Your task to perform on an android device: change keyboard looks Image 0: 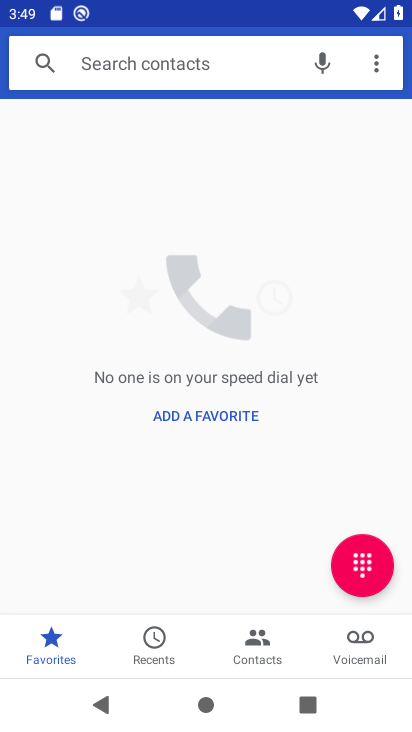
Step 0: press home button
Your task to perform on an android device: change keyboard looks Image 1: 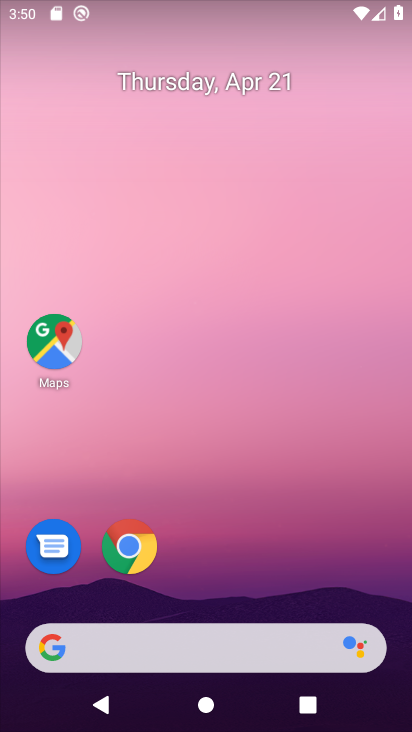
Step 1: drag from (315, 591) to (327, 82)
Your task to perform on an android device: change keyboard looks Image 2: 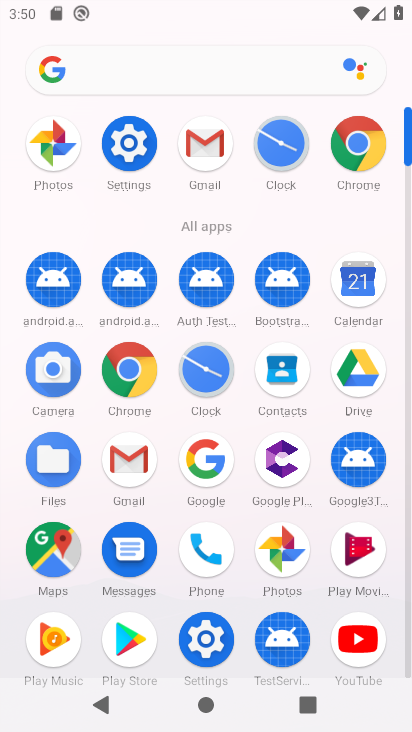
Step 2: click (204, 632)
Your task to perform on an android device: change keyboard looks Image 3: 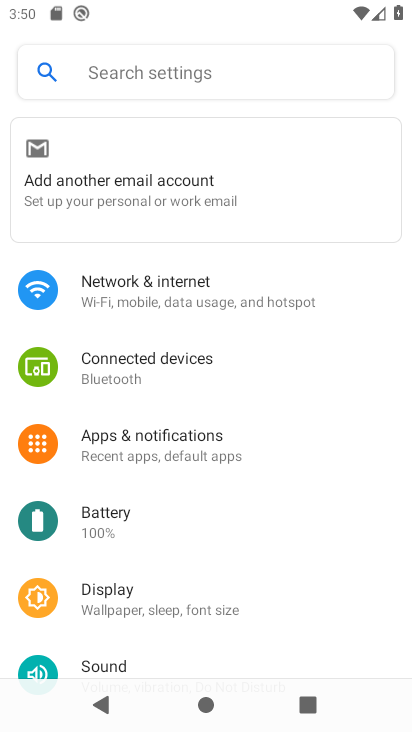
Step 3: click (117, 40)
Your task to perform on an android device: change keyboard looks Image 4: 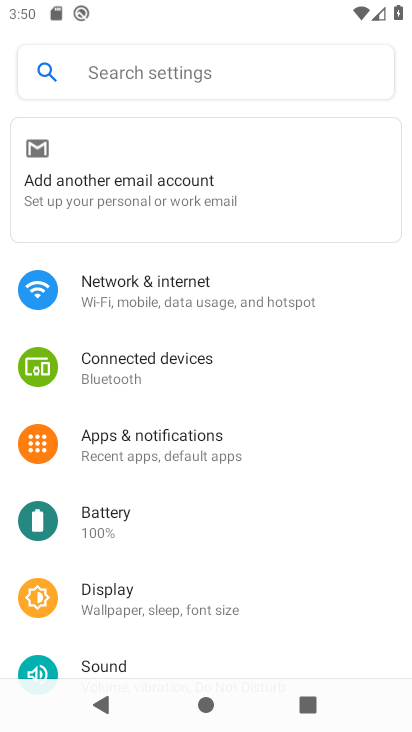
Step 4: click (133, 64)
Your task to perform on an android device: change keyboard looks Image 5: 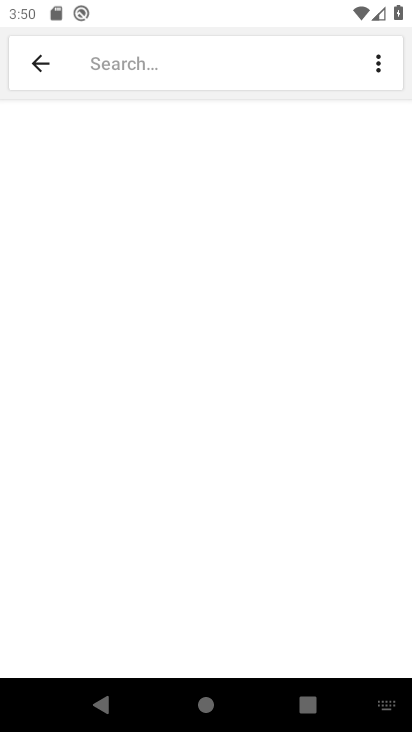
Step 5: type "keyboard"
Your task to perform on an android device: change keyboard looks Image 6: 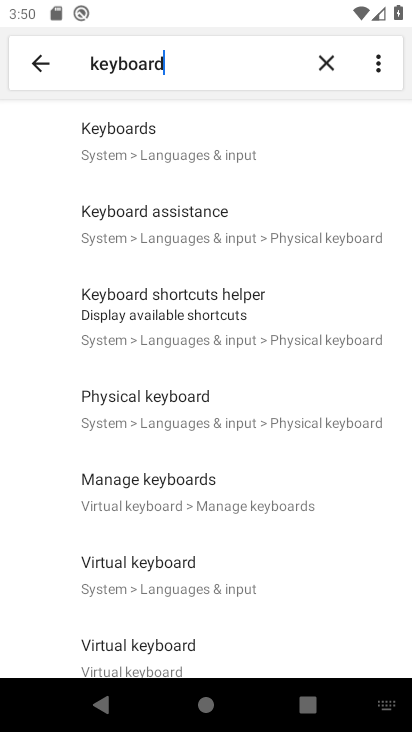
Step 6: click (222, 138)
Your task to perform on an android device: change keyboard looks Image 7: 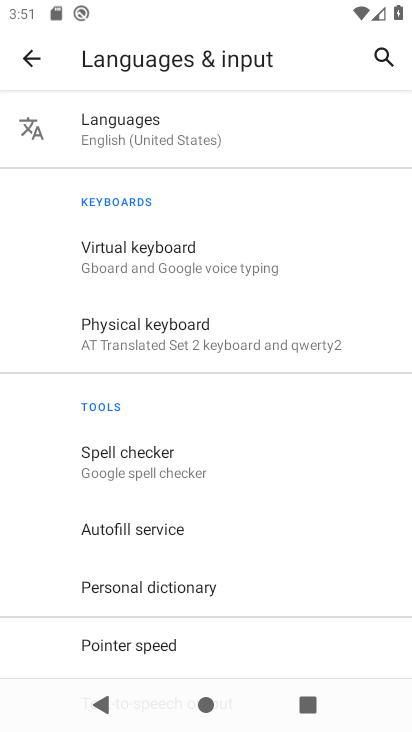
Step 7: click (142, 256)
Your task to perform on an android device: change keyboard looks Image 8: 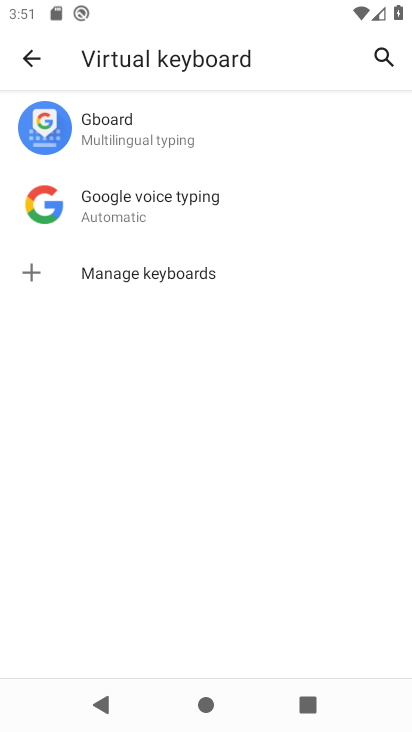
Step 8: click (135, 160)
Your task to perform on an android device: change keyboard looks Image 9: 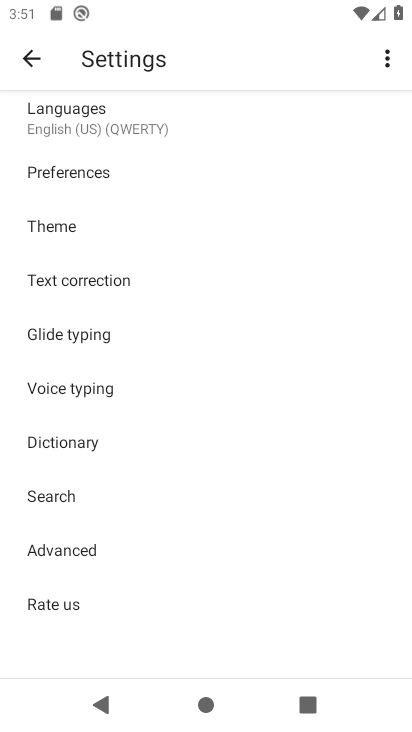
Step 9: click (78, 231)
Your task to perform on an android device: change keyboard looks Image 10: 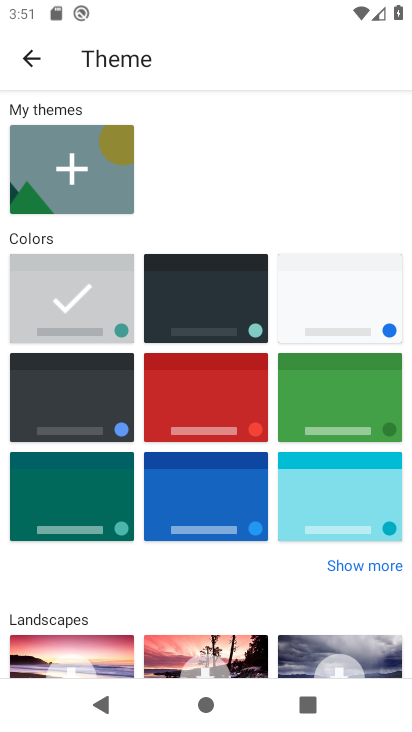
Step 10: click (91, 475)
Your task to perform on an android device: change keyboard looks Image 11: 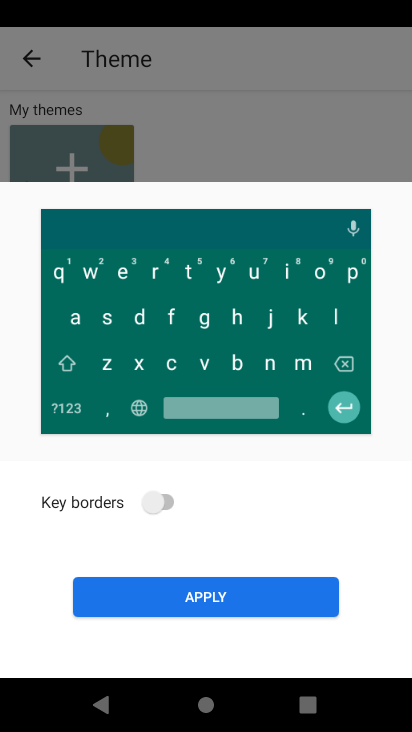
Step 11: click (177, 595)
Your task to perform on an android device: change keyboard looks Image 12: 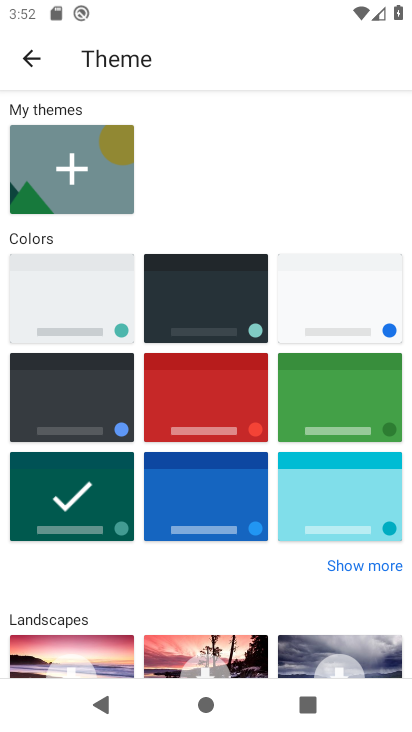
Step 12: task complete